Your task to perform on an android device: See recent photos Image 0: 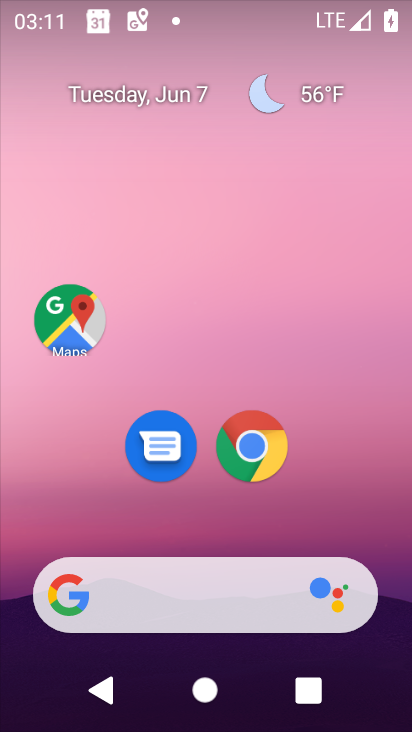
Step 0: click (247, 65)
Your task to perform on an android device: See recent photos Image 1: 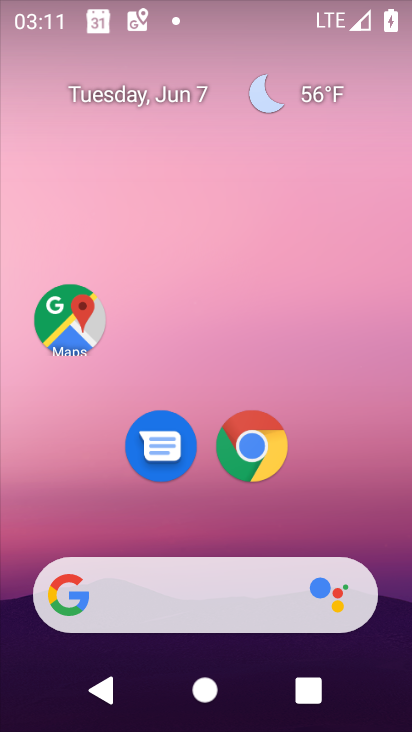
Step 1: drag from (152, 691) to (221, 3)
Your task to perform on an android device: See recent photos Image 2: 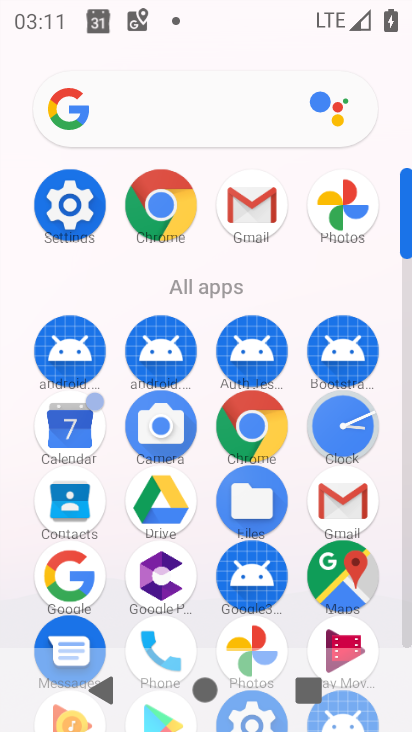
Step 2: click (347, 205)
Your task to perform on an android device: See recent photos Image 3: 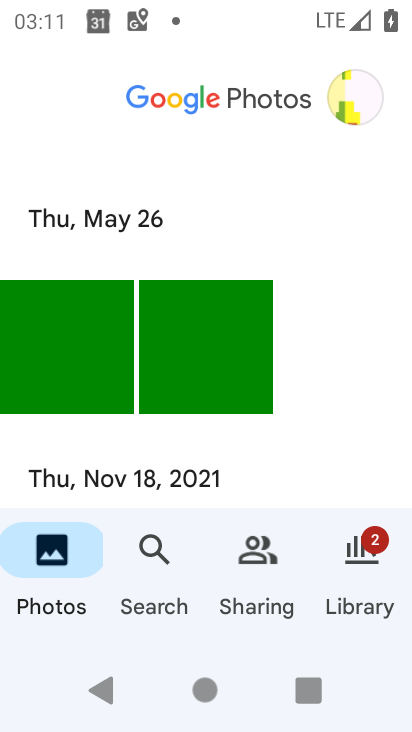
Step 3: click (136, 552)
Your task to perform on an android device: See recent photos Image 4: 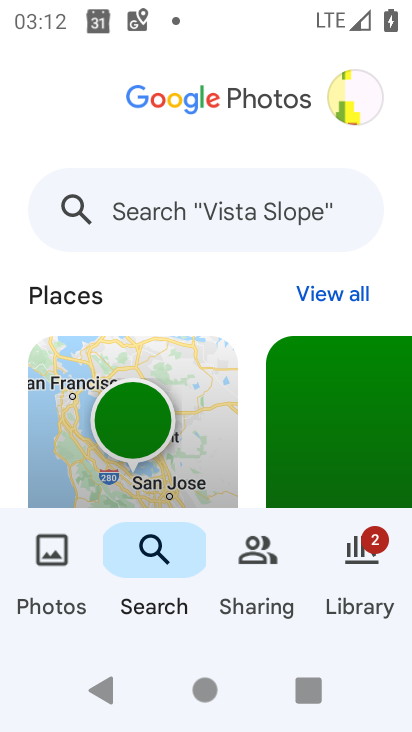
Step 4: drag from (225, 418) to (355, 9)
Your task to perform on an android device: See recent photos Image 5: 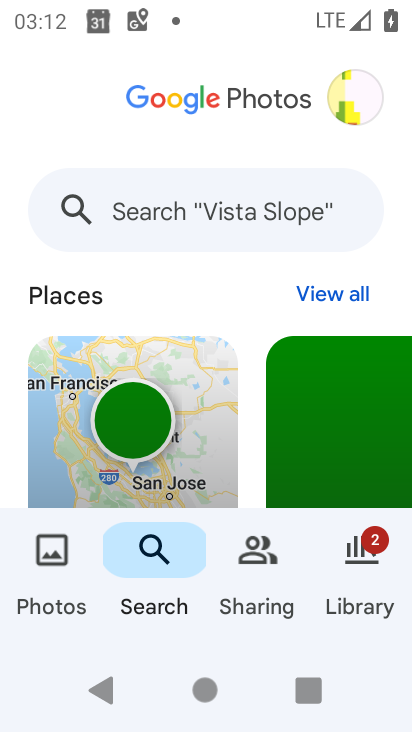
Step 5: drag from (255, 436) to (342, 30)
Your task to perform on an android device: See recent photos Image 6: 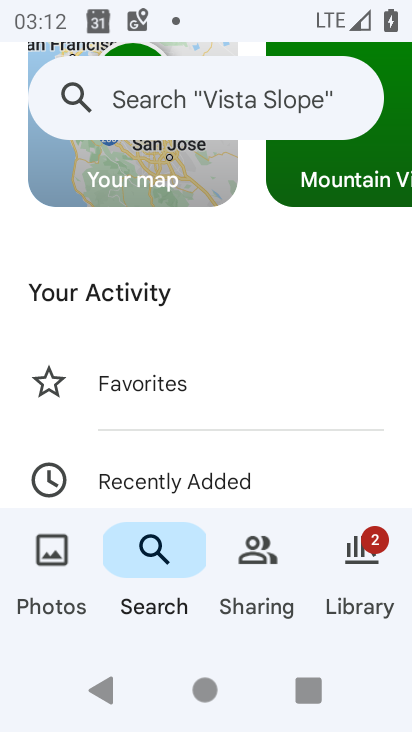
Step 6: click (163, 493)
Your task to perform on an android device: See recent photos Image 7: 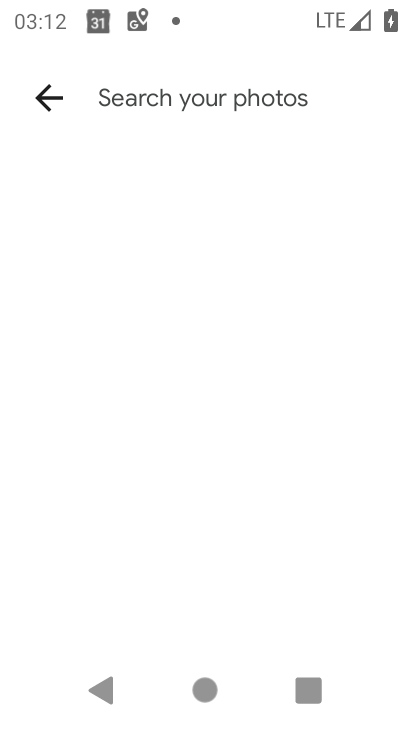
Step 7: task complete